Your task to perform on an android device: turn on data saver in the chrome app Image 0: 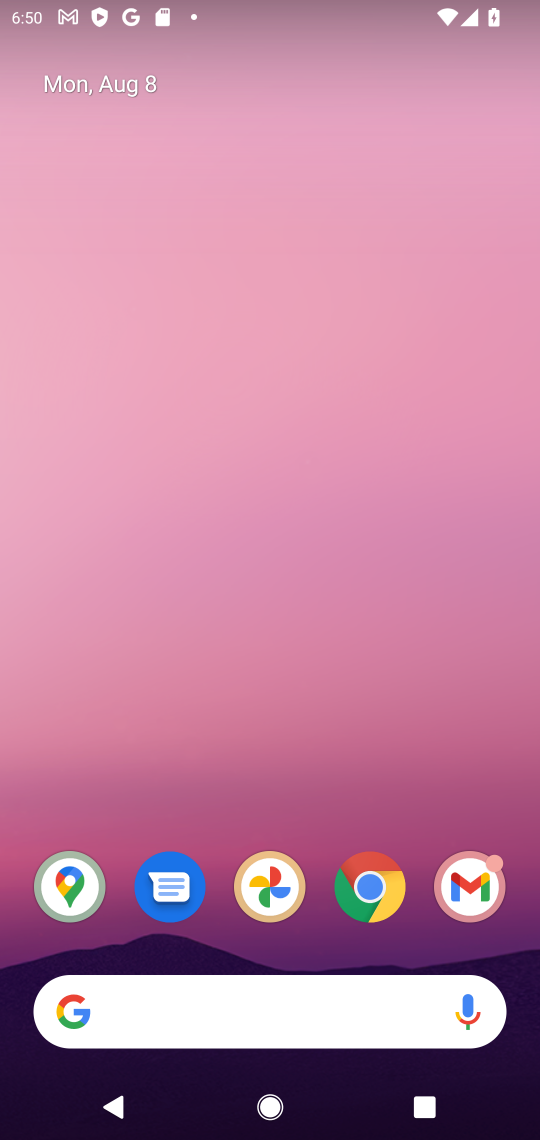
Step 0: drag from (346, 763) to (312, 70)
Your task to perform on an android device: turn on data saver in the chrome app Image 1: 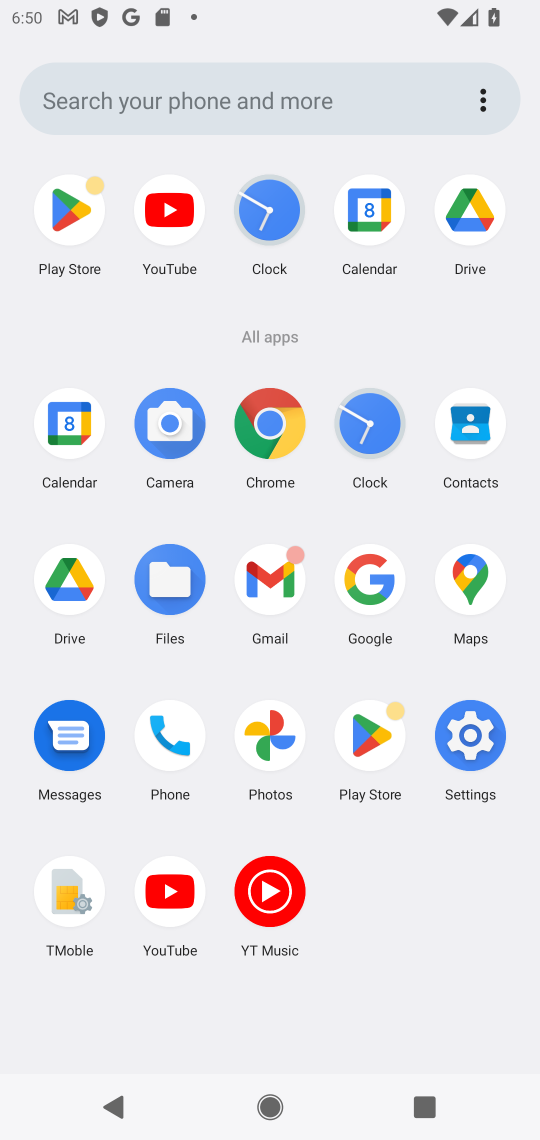
Step 1: click (257, 440)
Your task to perform on an android device: turn on data saver in the chrome app Image 2: 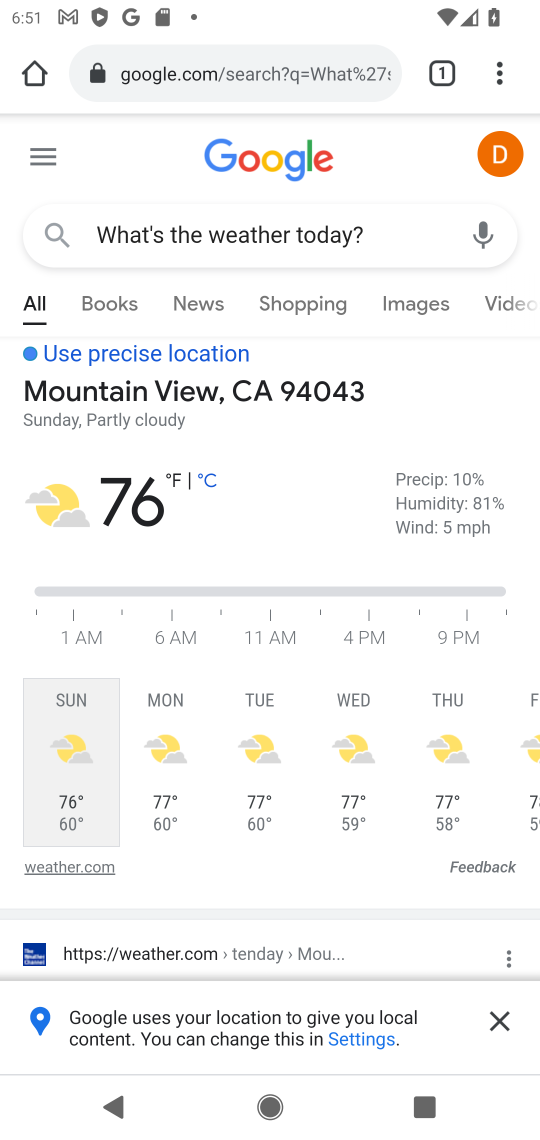
Step 2: click (498, 105)
Your task to perform on an android device: turn on data saver in the chrome app Image 3: 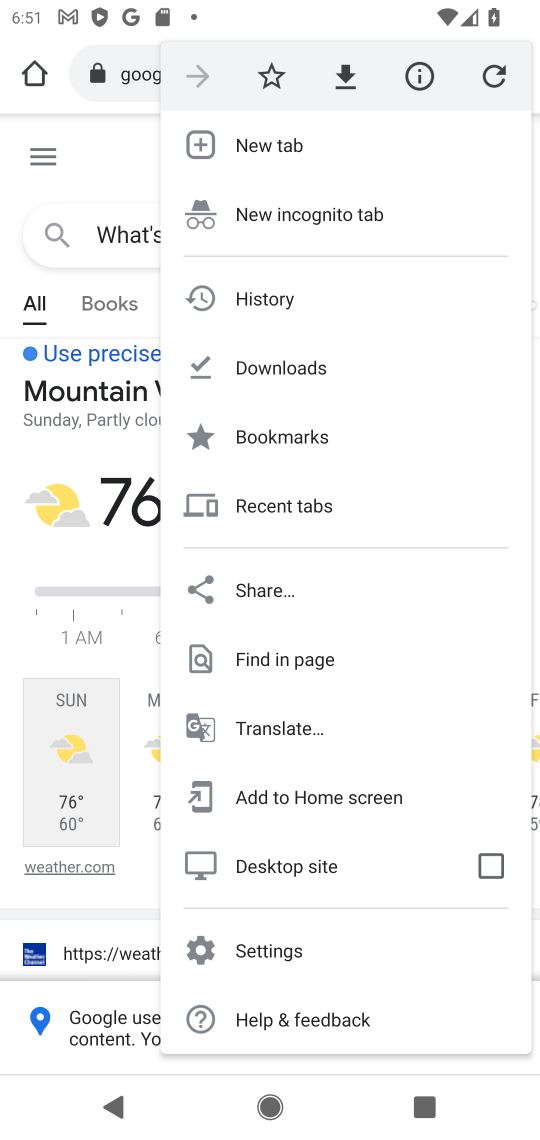
Step 3: click (333, 949)
Your task to perform on an android device: turn on data saver in the chrome app Image 4: 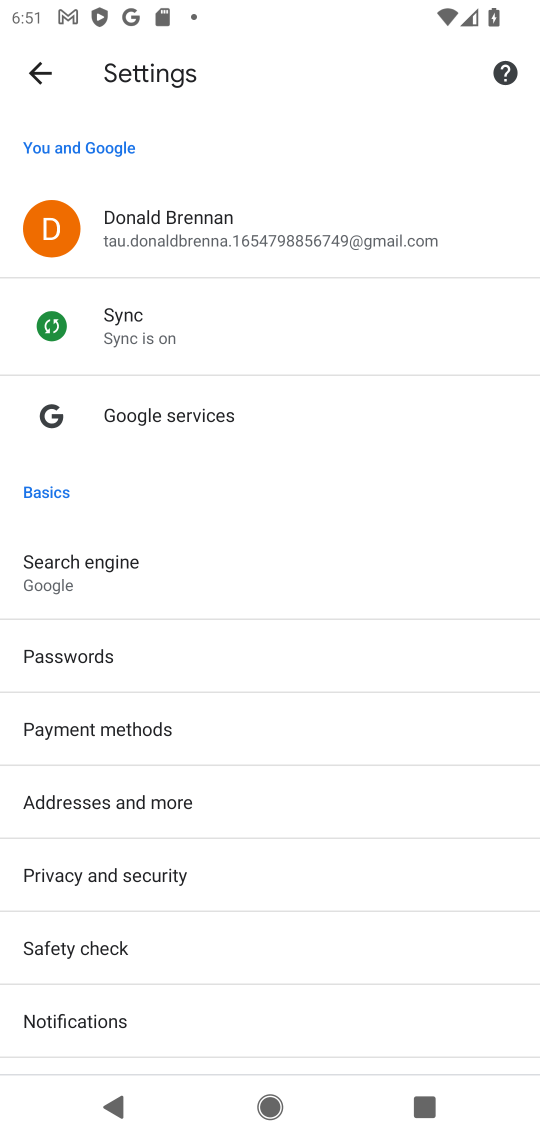
Step 4: drag from (285, 1015) to (245, 523)
Your task to perform on an android device: turn on data saver in the chrome app Image 5: 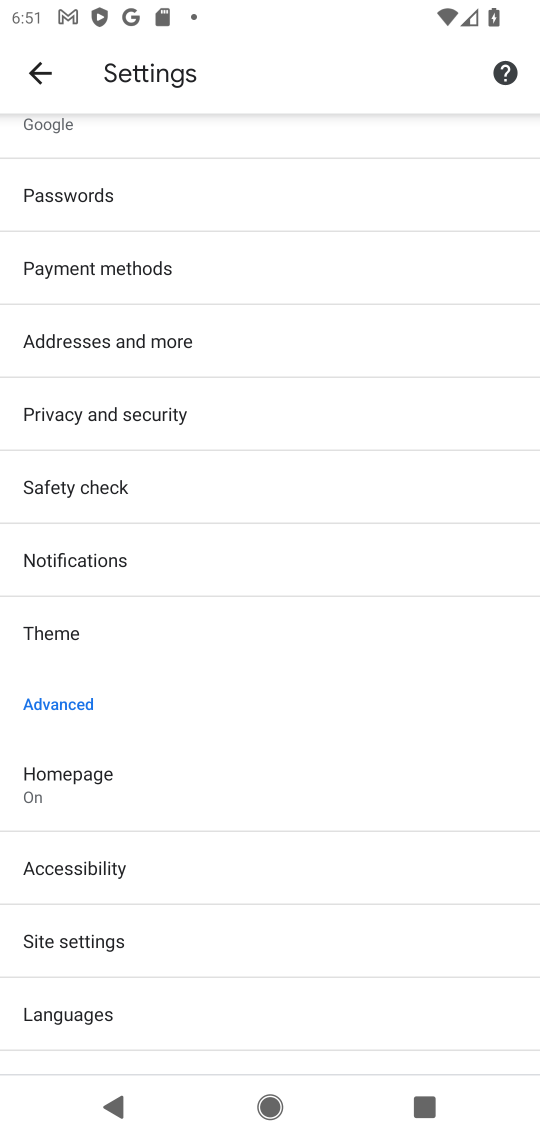
Step 5: drag from (226, 1019) to (143, 621)
Your task to perform on an android device: turn on data saver in the chrome app Image 6: 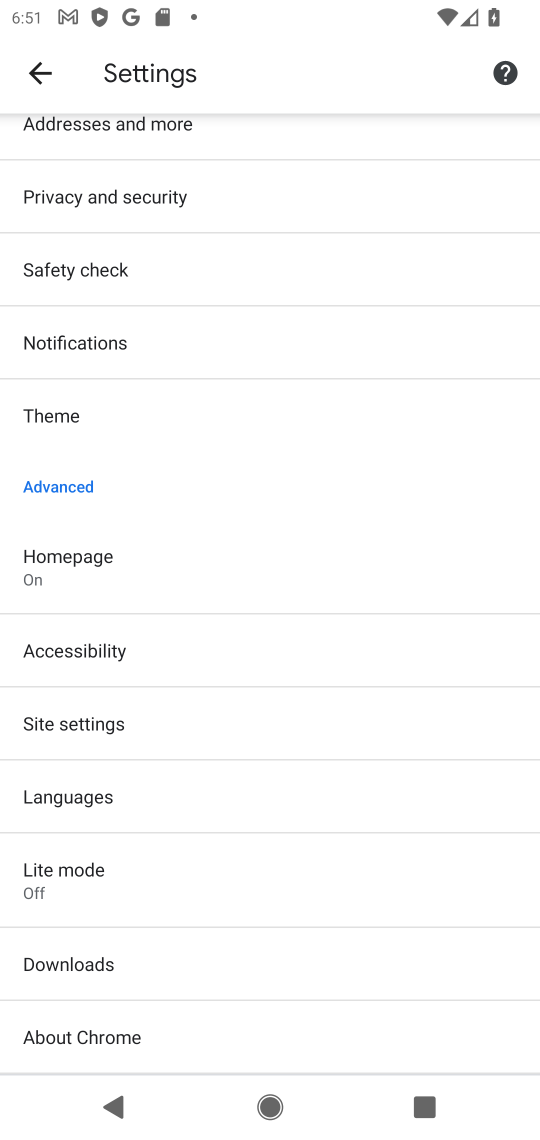
Step 6: click (190, 872)
Your task to perform on an android device: turn on data saver in the chrome app Image 7: 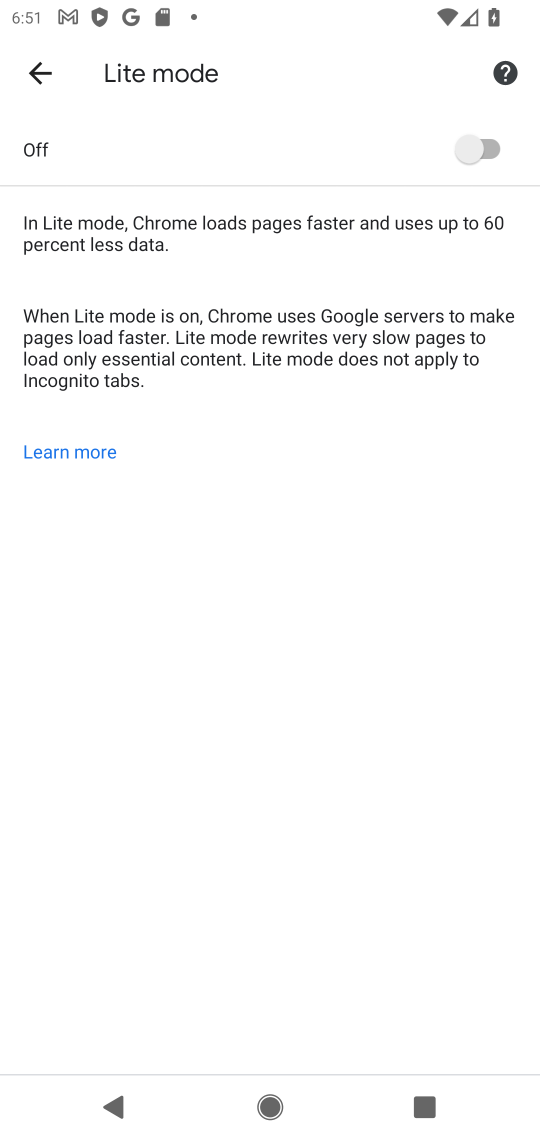
Step 7: click (472, 183)
Your task to perform on an android device: turn on data saver in the chrome app Image 8: 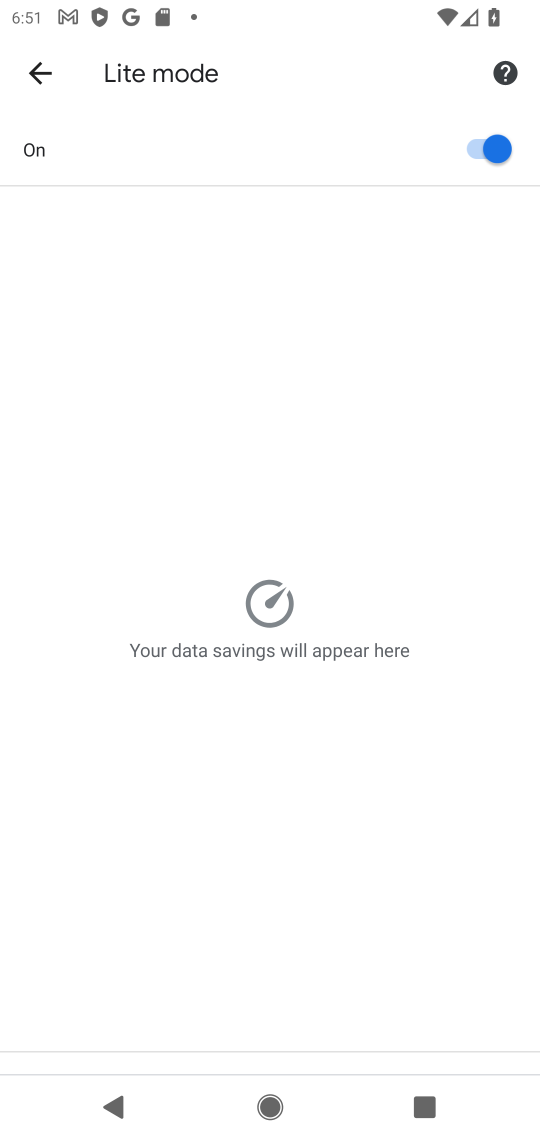
Step 8: task complete